Your task to perform on an android device: Toggle the flashlight Image 0: 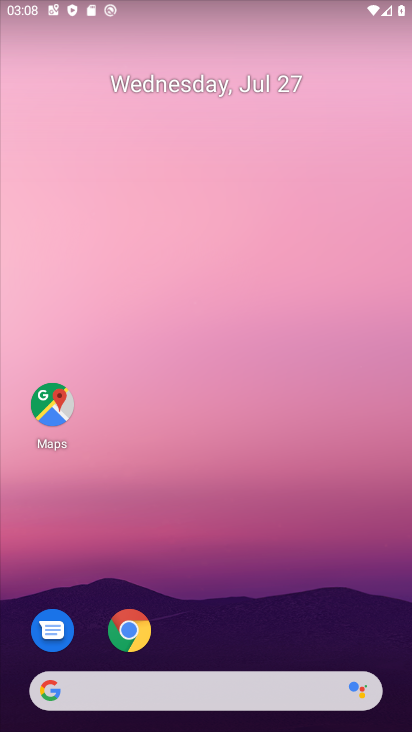
Step 0: drag from (286, 643) to (49, 158)
Your task to perform on an android device: Toggle the flashlight Image 1: 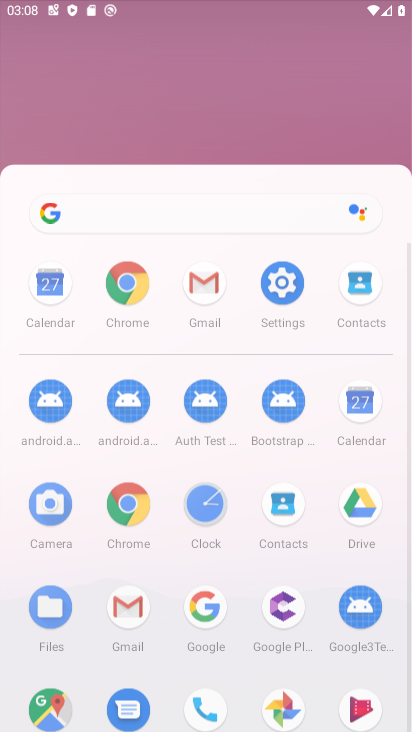
Step 1: task complete